Your task to perform on an android device: toggle notifications settings in the gmail app Image 0: 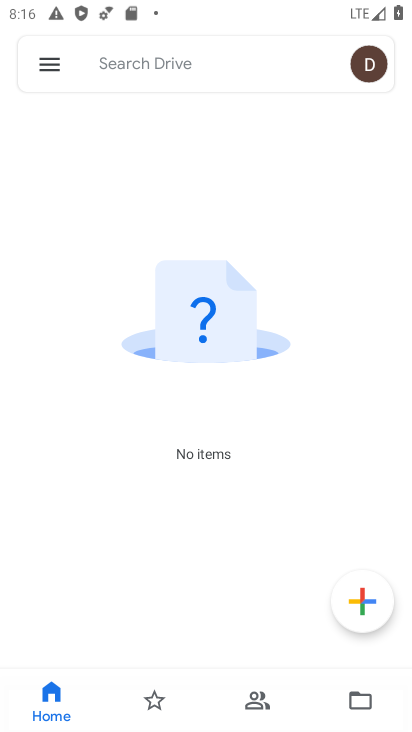
Step 0: press home button
Your task to perform on an android device: toggle notifications settings in the gmail app Image 1: 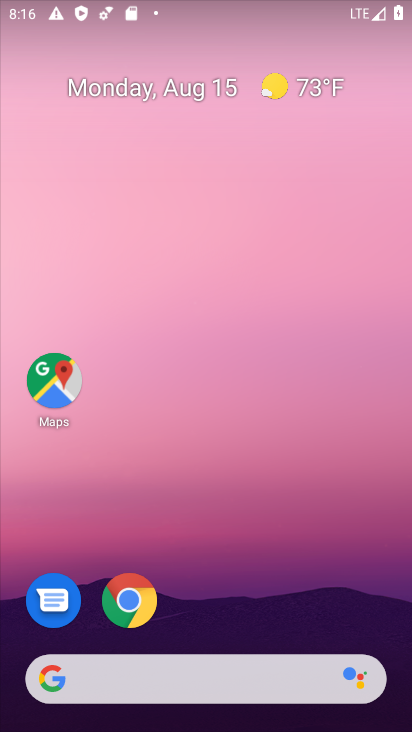
Step 1: drag from (227, 642) to (199, 50)
Your task to perform on an android device: toggle notifications settings in the gmail app Image 2: 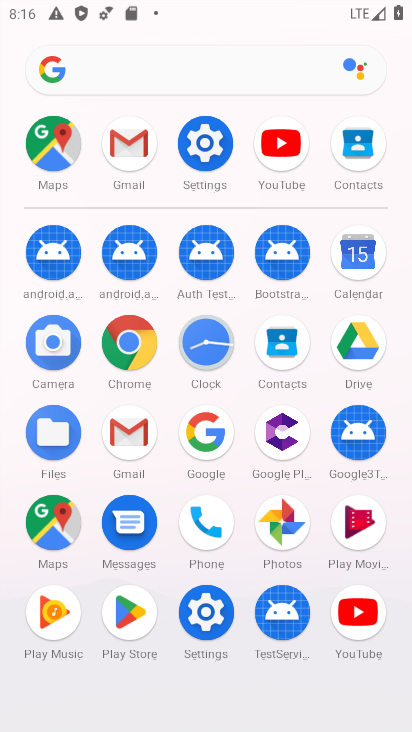
Step 2: click (126, 430)
Your task to perform on an android device: toggle notifications settings in the gmail app Image 3: 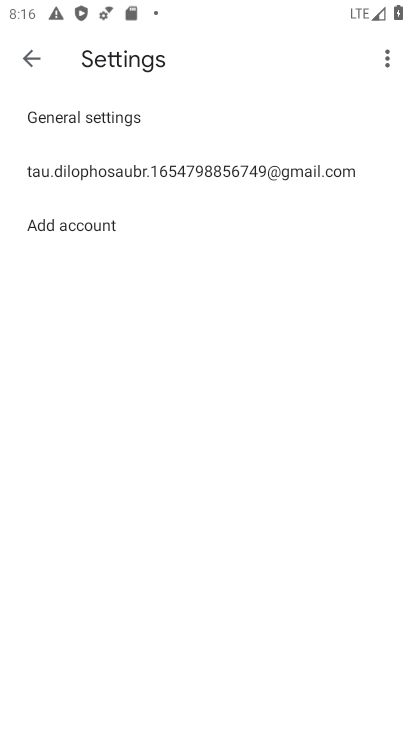
Step 3: click (195, 166)
Your task to perform on an android device: toggle notifications settings in the gmail app Image 4: 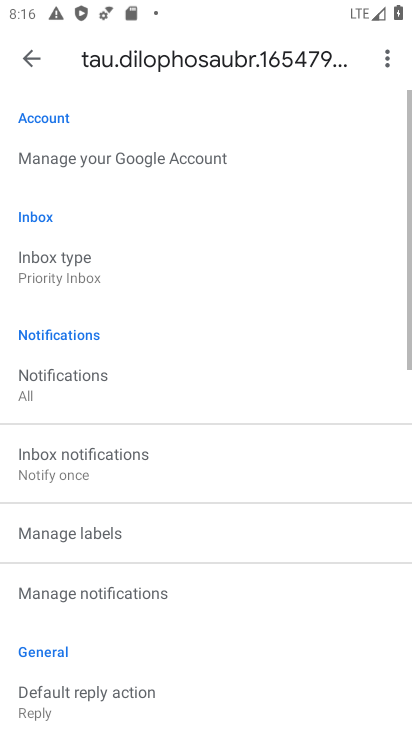
Step 4: drag from (129, 636) to (127, 505)
Your task to perform on an android device: toggle notifications settings in the gmail app Image 5: 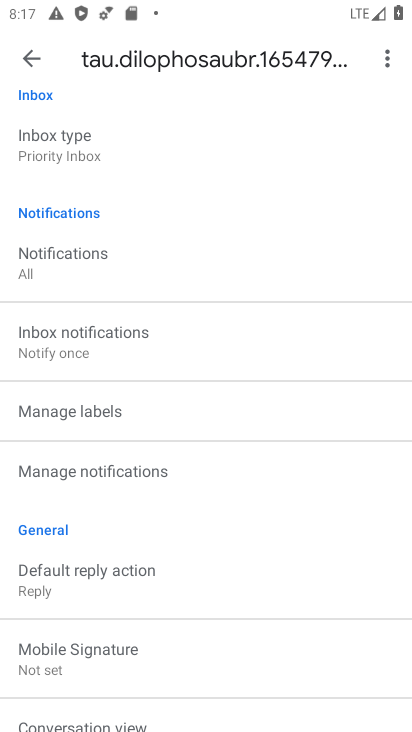
Step 5: click (87, 284)
Your task to perform on an android device: toggle notifications settings in the gmail app Image 6: 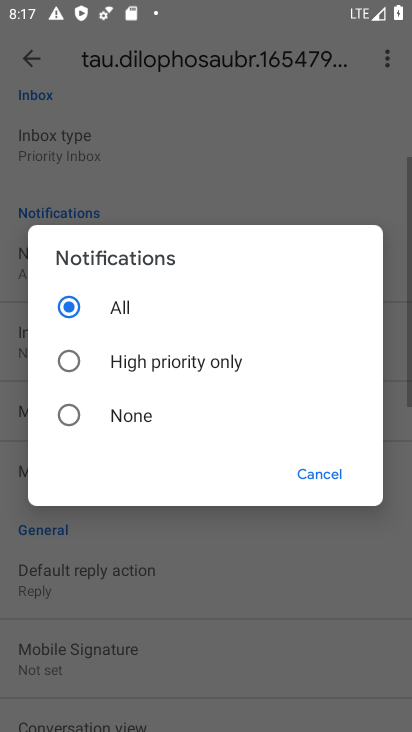
Step 6: click (63, 420)
Your task to perform on an android device: toggle notifications settings in the gmail app Image 7: 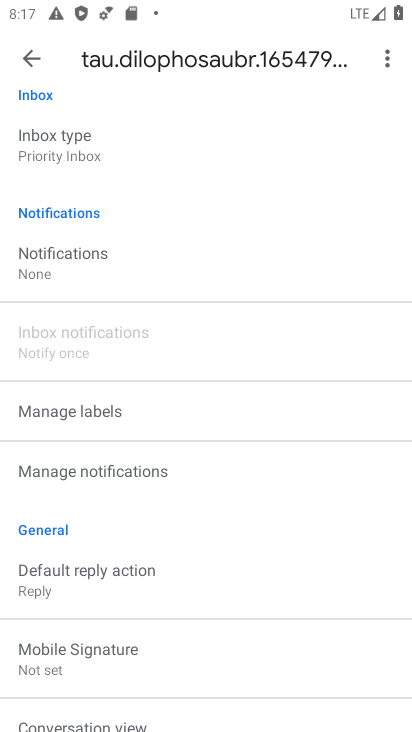
Step 7: task complete